Your task to perform on an android device: Open network settings Image 0: 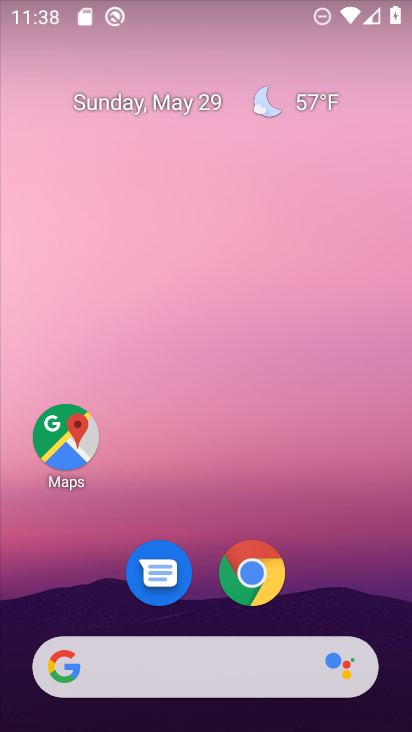
Step 0: drag from (307, 645) to (251, 4)
Your task to perform on an android device: Open network settings Image 1: 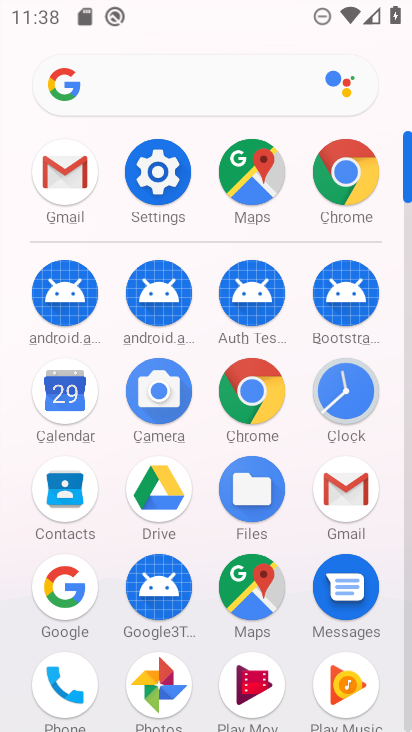
Step 1: click (153, 173)
Your task to perform on an android device: Open network settings Image 2: 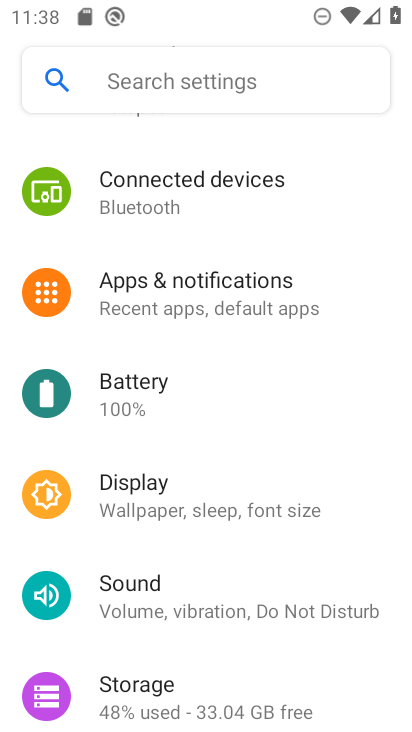
Step 2: drag from (255, 571) to (326, 12)
Your task to perform on an android device: Open network settings Image 3: 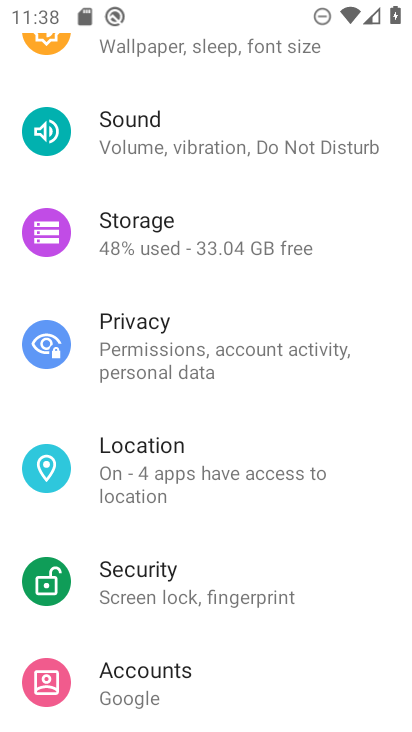
Step 3: drag from (254, 193) to (195, 686)
Your task to perform on an android device: Open network settings Image 4: 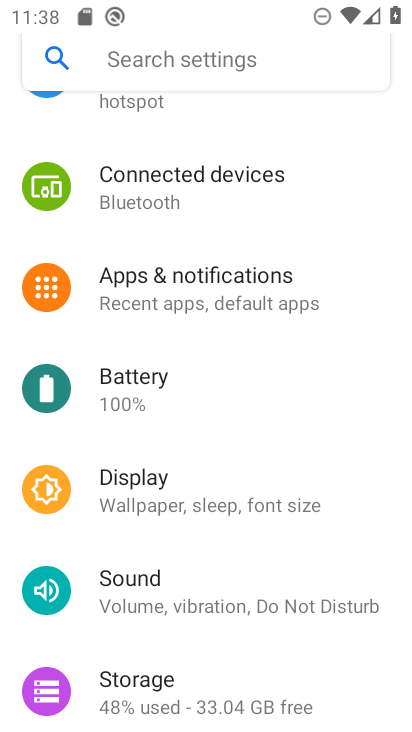
Step 4: drag from (215, 294) to (297, 727)
Your task to perform on an android device: Open network settings Image 5: 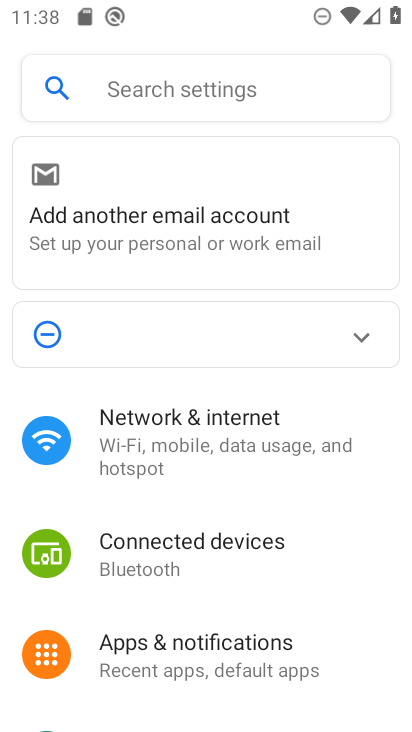
Step 5: click (256, 426)
Your task to perform on an android device: Open network settings Image 6: 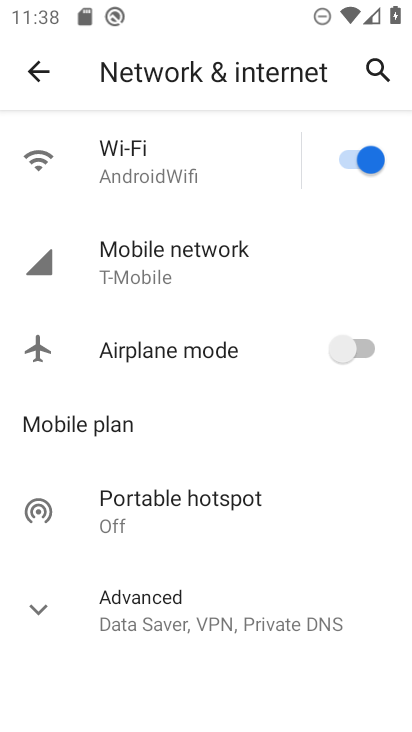
Step 6: task complete